Your task to perform on an android device: Open Youtube and go to "Your channel" Image 0: 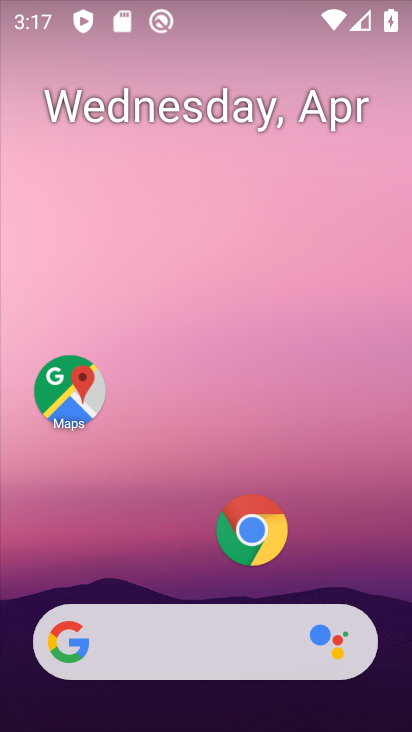
Step 0: drag from (158, 379) to (227, 102)
Your task to perform on an android device: Open Youtube and go to "Your channel" Image 1: 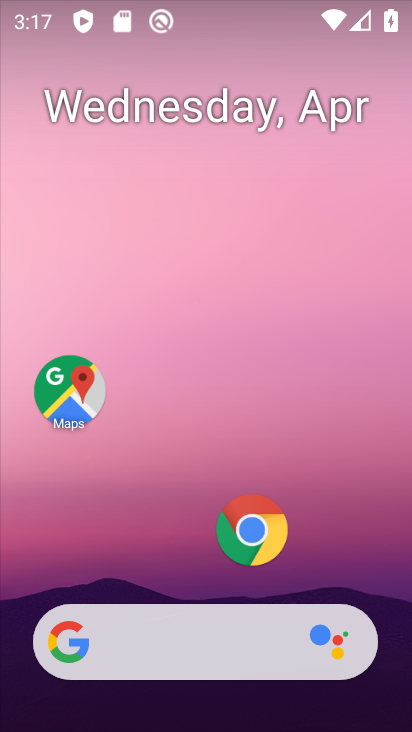
Step 1: drag from (155, 511) to (276, 42)
Your task to perform on an android device: Open Youtube and go to "Your channel" Image 2: 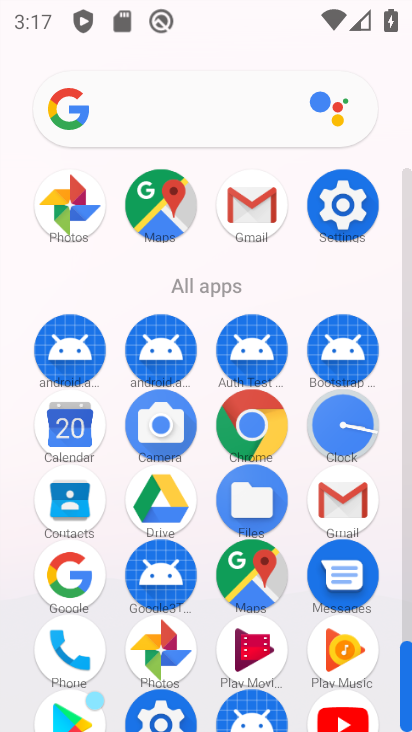
Step 2: drag from (224, 565) to (333, 141)
Your task to perform on an android device: Open Youtube and go to "Your channel" Image 3: 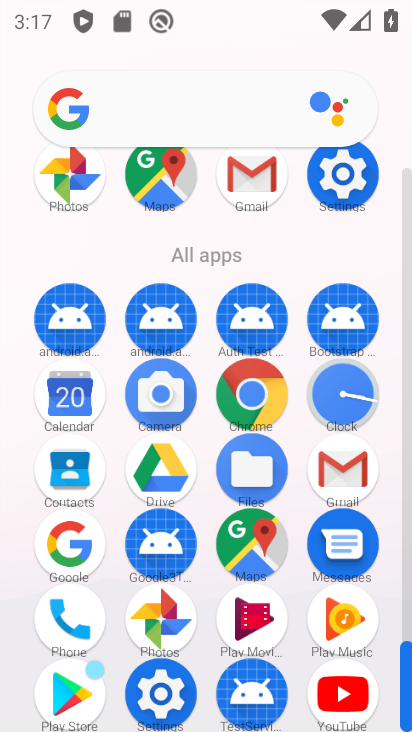
Step 3: click (328, 709)
Your task to perform on an android device: Open Youtube and go to "Your channel" Image 4: 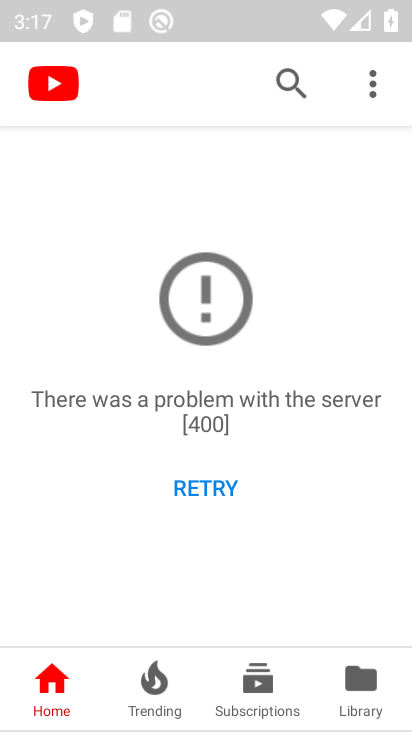
Step 4: click (362, 694)
Your task to perform on an android device: Open Youtube and go to "Your channel" Image 5: 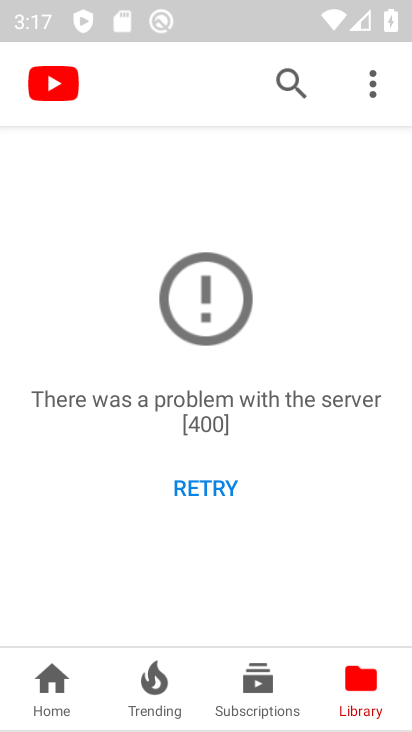
Step 5: task complete